Your task to perform on an android device: See recent photos Image 0: 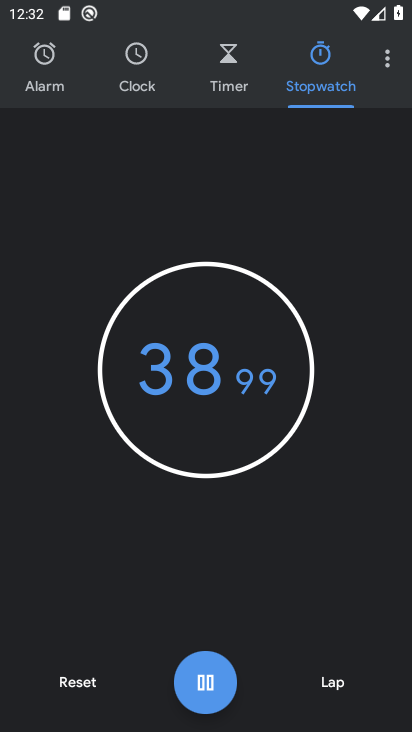
Step 0: press home button
Your task to perform on an android device: See recent photos Image 1: 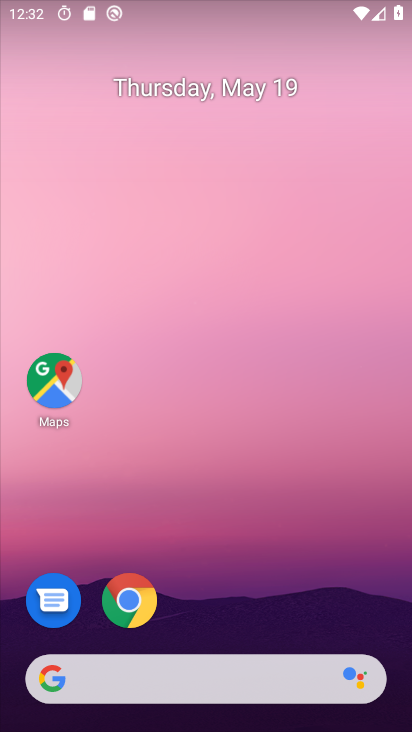
Step 1: drag from (293, 478) to (130, 35)
Your task to perform on an android device: See recent photos Image 2: 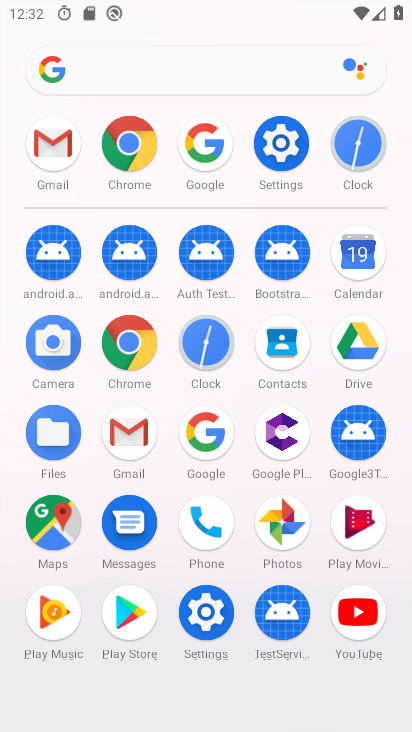
Step 2: click (270, 536)
Your task to perform on an android device: See recent photos Image 3: 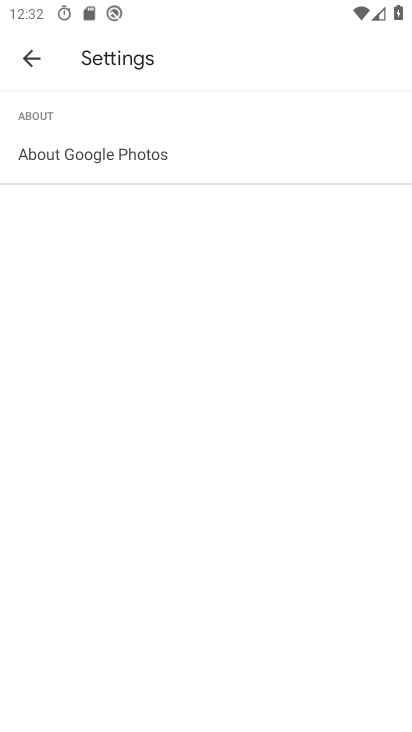
Step 3: click (29, 59)
Your task to perform on an android device: See recent photos Image 4: 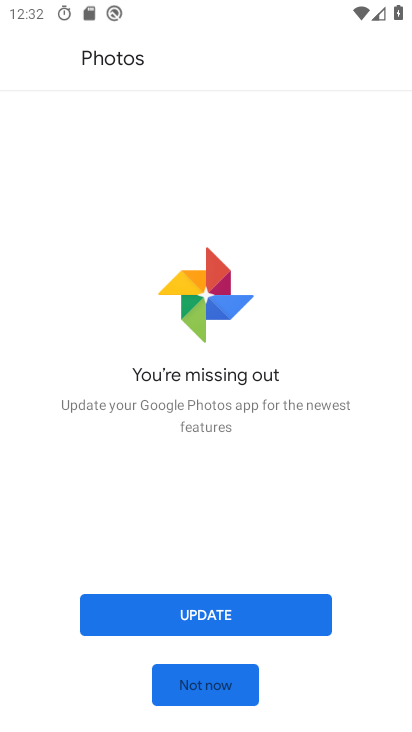
Step 4: click (225, 617)
Your task to perform on an android device: See recent photos Image 5: 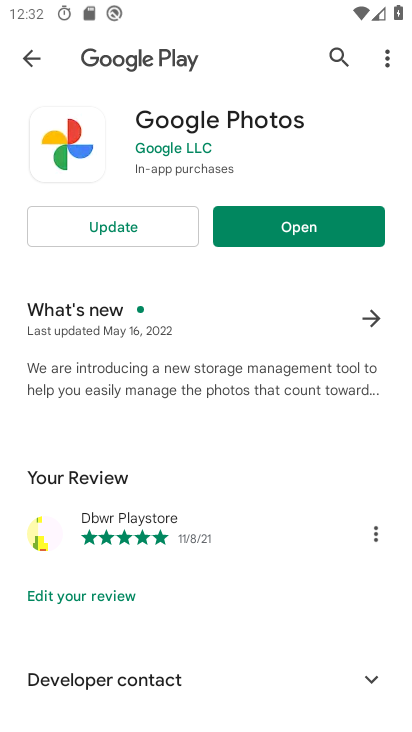
Step 5: click (160, 234)
Your task to perform on an android device: See recent photos Image 6: 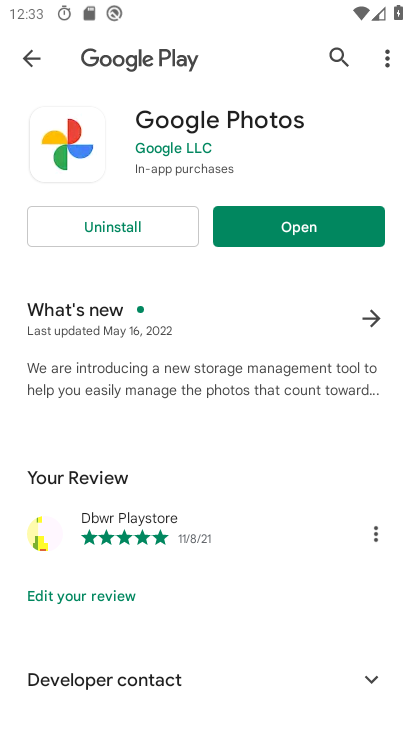
Step 6: click (300, 222)
Your task to perform on an android device: See recent photos Image 7: 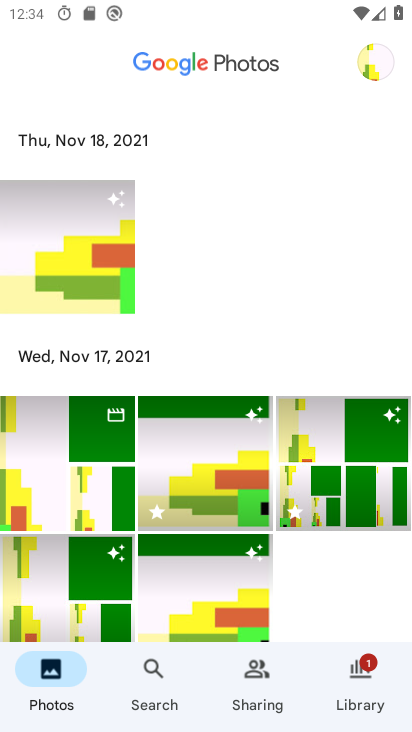
Step 7: task complete